Your task to perform on an android device: Open the stopwatch Image 0: 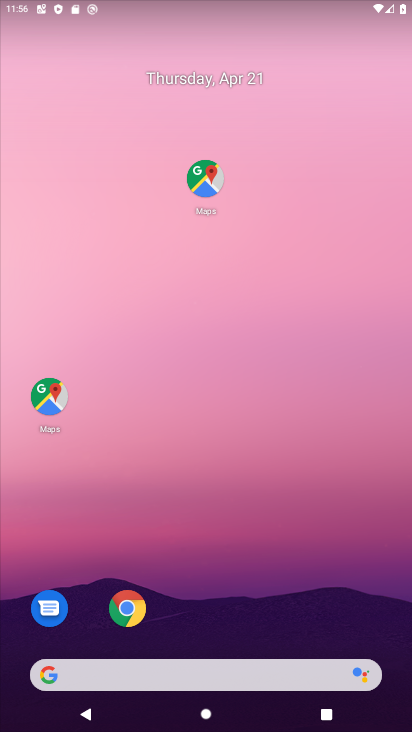
Step 0: drag from (259, 708) to (198, 86)
Your task to perform on an android device: Open the stopwatch Image 1: 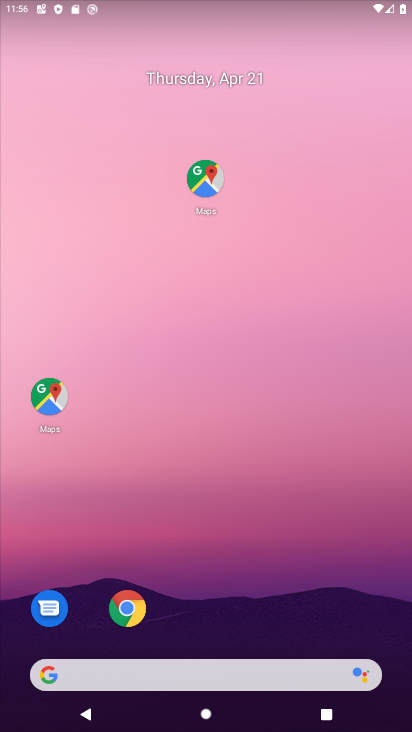
Step 1: drag from (256, 710) to (36, 80)
Your task to perform on an android device: Open the stopwatch Image 2: 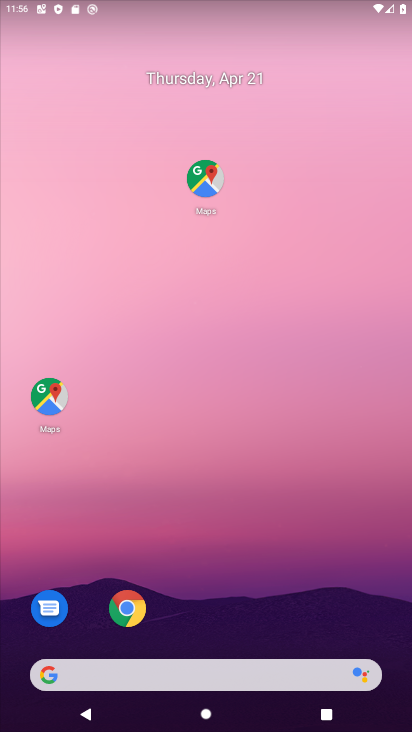
Step 2: drag from (237, 688) to (153, 116)
Your task to perform on an android device: Open the stopwatch Image 3: 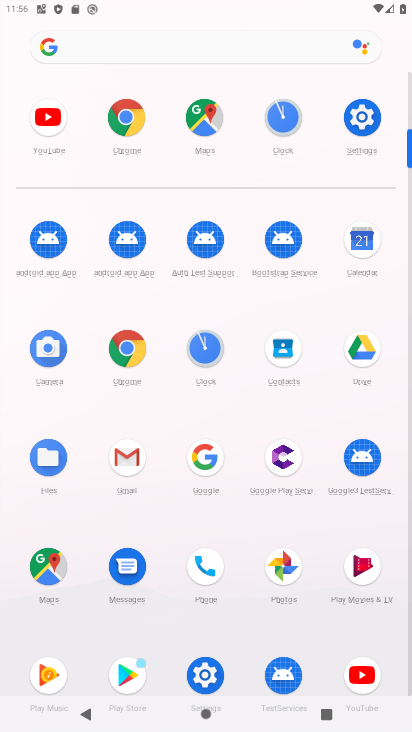
Step 3: click (153, 110)
Your task to perform on an android device: Open the stopwatch Image 4: 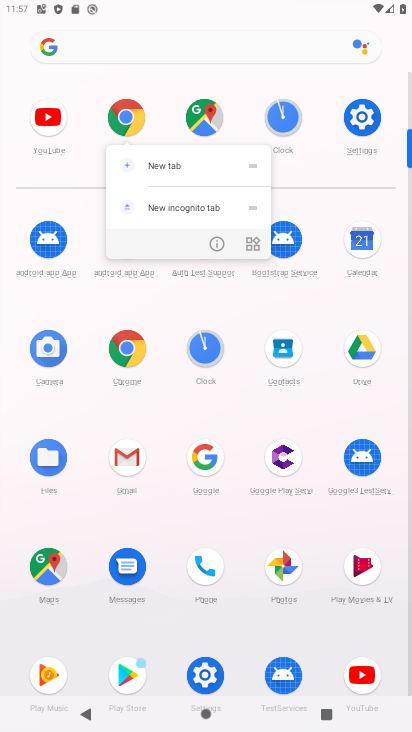
Step 4: click (276, 120)
Your task to perform on an android device: Open the stopwatch Image 5: 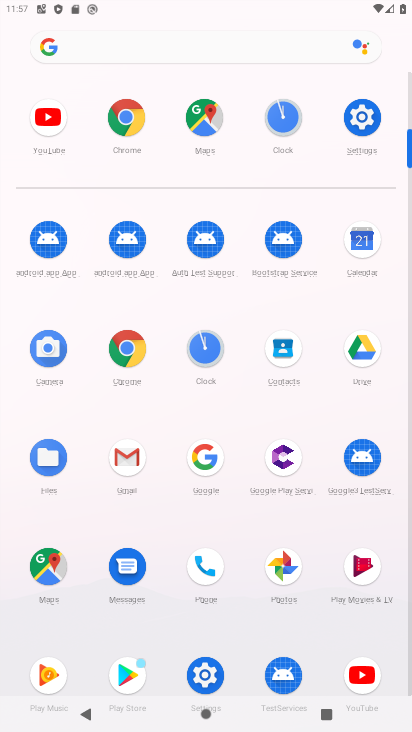
Step 5: click (276, 120)
Your task to perform on an android device: Open the stopwatch Image 6: 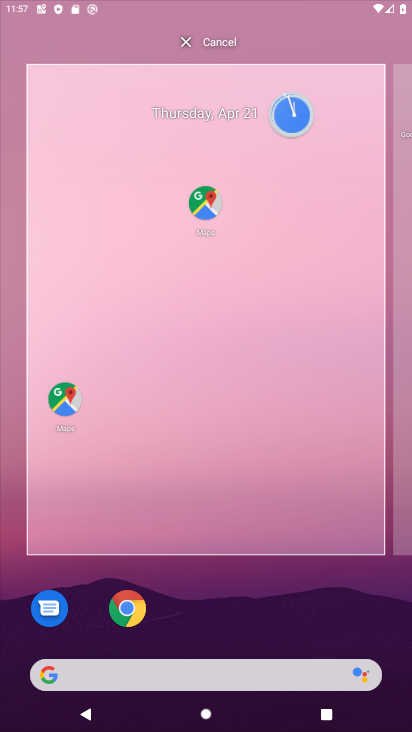
Step 6: click (284, 117)
Your task to perform on an android device: Open the stopwatch Image 7: 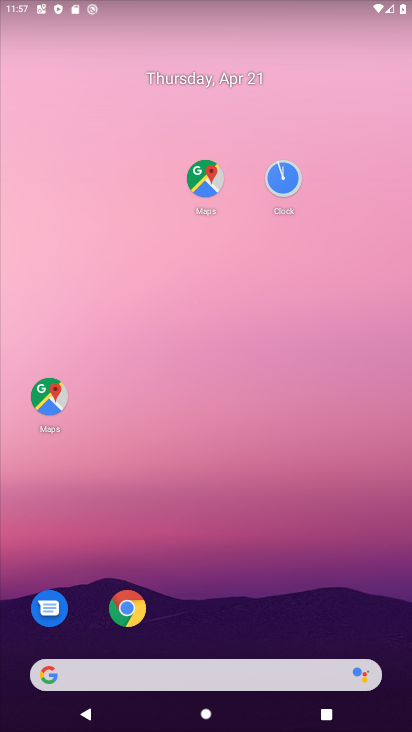
Step 7: click (288, 175)
Your task to perform on an android device: Open the stopwatch Image 8: 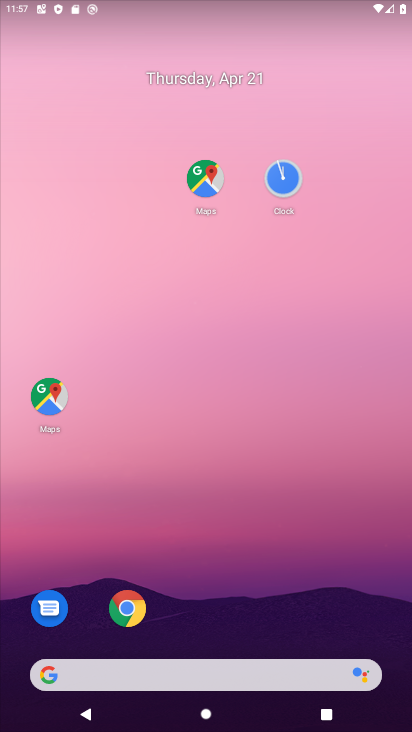
Step 8: click (287, 175)
Your task to perform on an android device: Open the stopwatch Image 9: 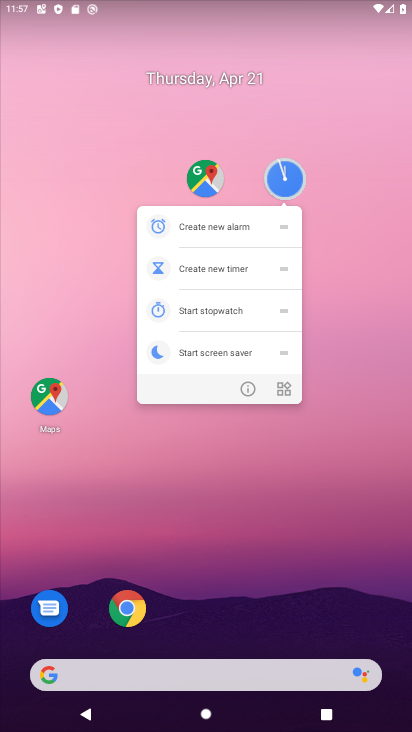
Step 9: click (286, 173)
Your task to perform on an android device: Open the stopwatch Image 10: 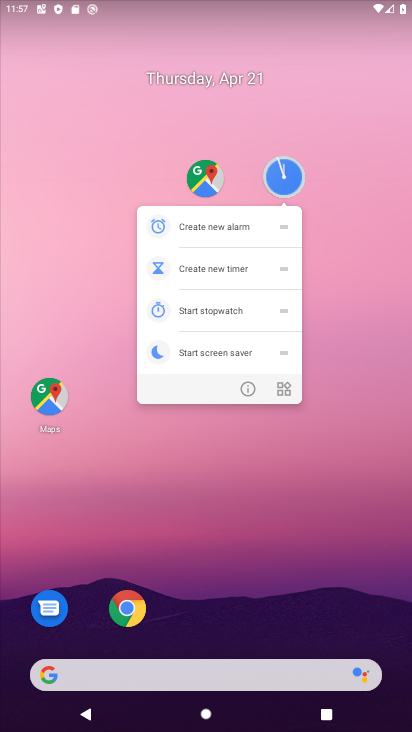
Step 10: click (285, 171)
Your task to perform on an android device: Open the stopwatch Image 11: 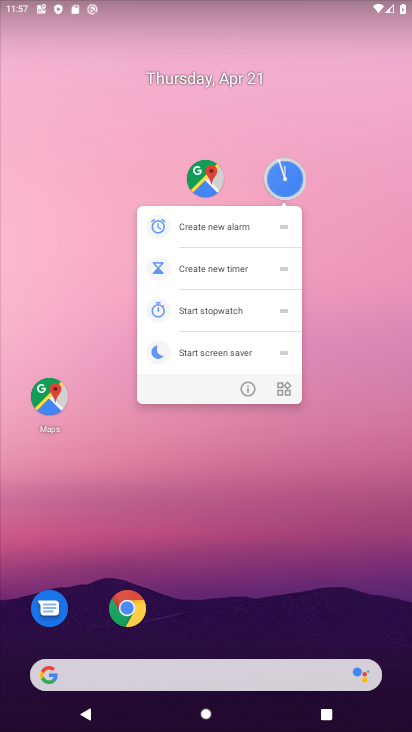
Step 11: click (284, 170)
Your task to perform on an android device: Open the stopwatch Image 12: 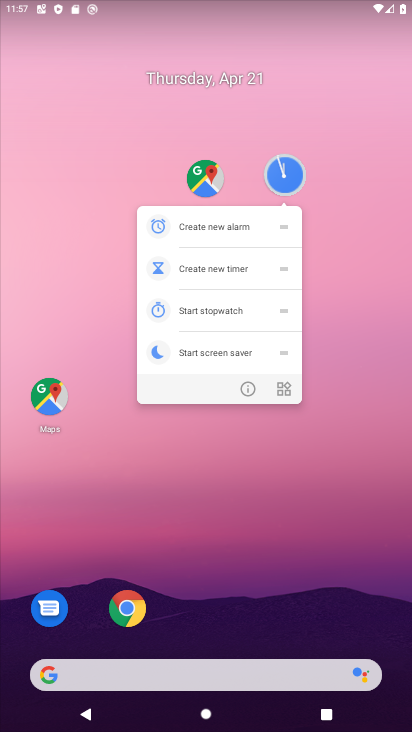
Step 12: click (284, 166)
Your task to perform on an android device: Open the stopwatch Image 13: 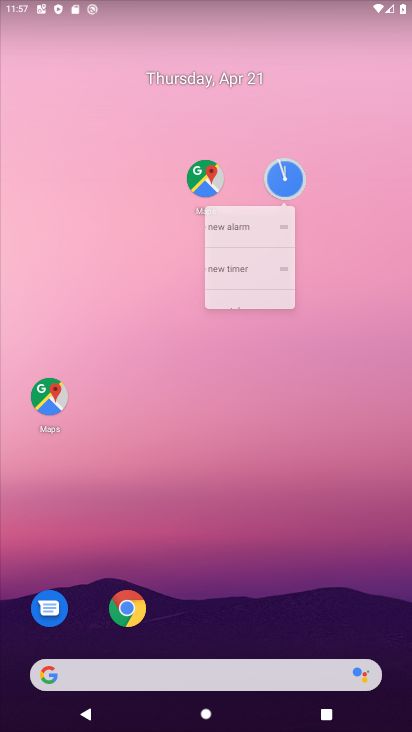
Step 13: click (284, 170)
Your task to perform on an android device: Open the stopwatch Image 14: 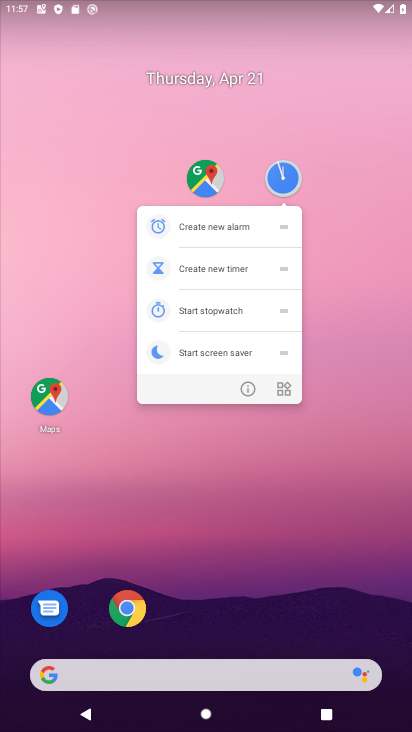
Step 14: click (284, 171)
Your task to perform on an android device: Open the stopwatch Image 15: 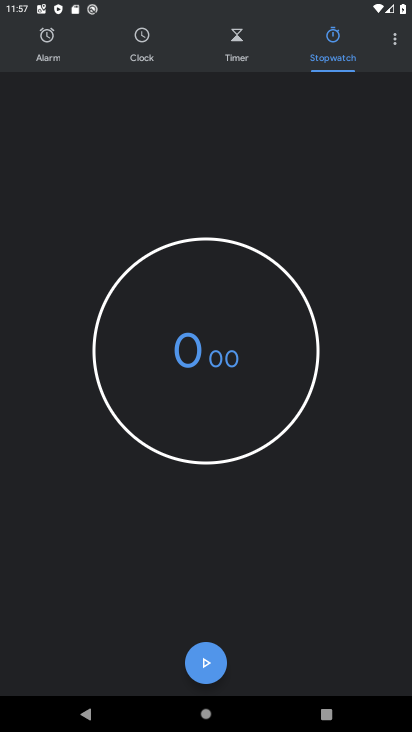
Step 15: click (205, 662)
Your task to perform on an android device: Open the stopwatch Image 16: 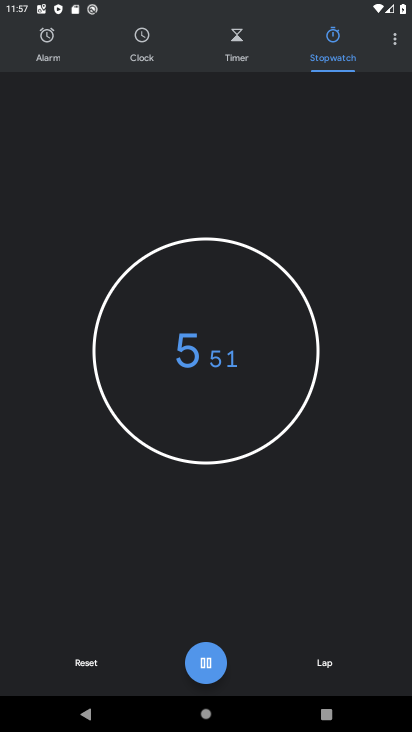
Step 16: click (209, 662)
Your task to perform on an android device: Open the stopwatch Image 17: 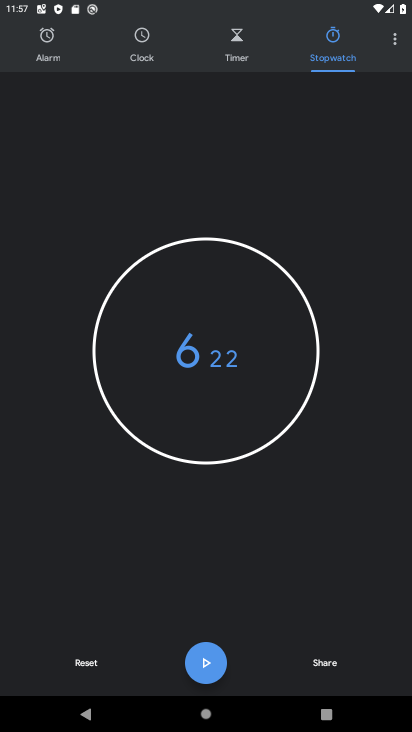
Step 17: task complete